Your task to perform on an android device: When is my next appointment? Image 0: 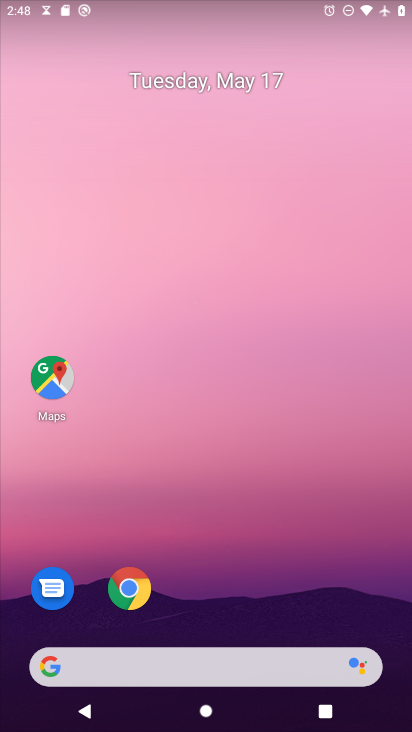
Step 0: drag from (241, 625) to (188, 151)
Your task to perform on an android device: When is my next appointment? Image 1: 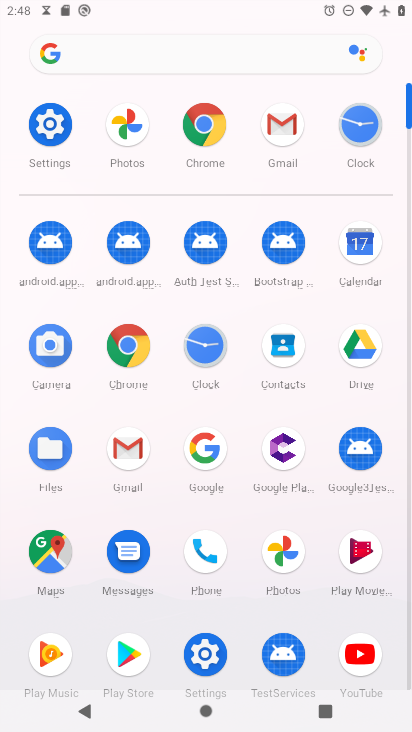
Step 1: click (349, 253)
Your task to perform on an android device: When is my next appointment? Image 2: 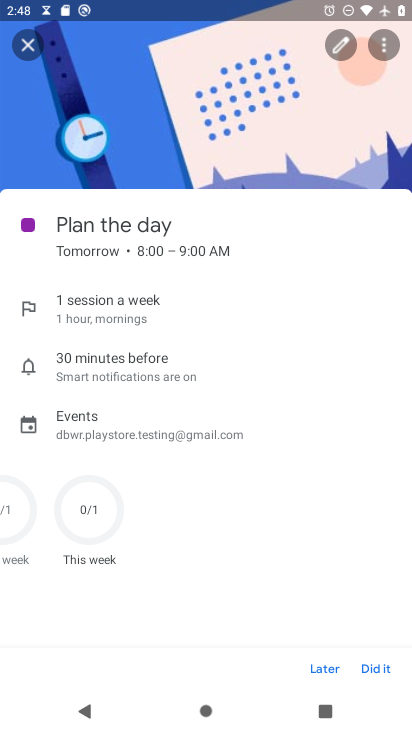
Step 2: click (25, 48)
Your task to perform on an android device: When is my next appointment? Image 3: 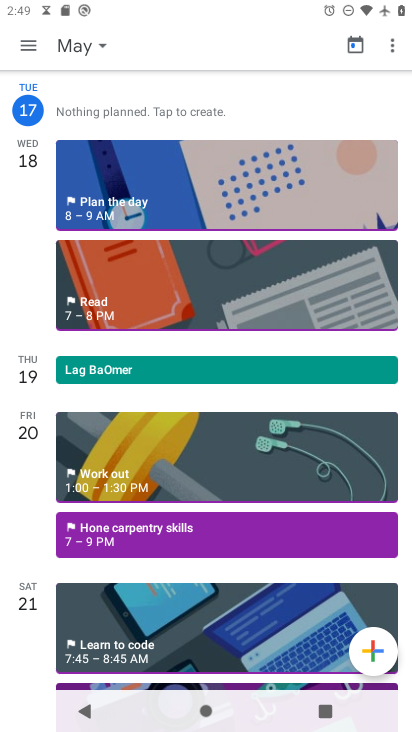
Step 3: click (141, 186)
Your task to perform on an android device: When is my next appointment? Image 4: 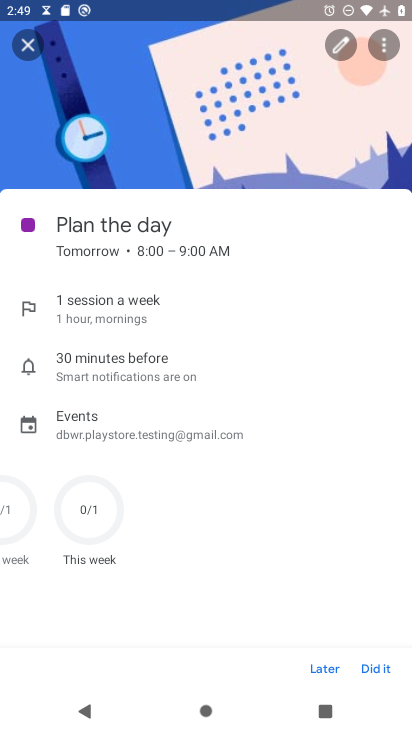
Step 4: task complete